Your task to perform on an android device: turn on airplane mode Image 0: 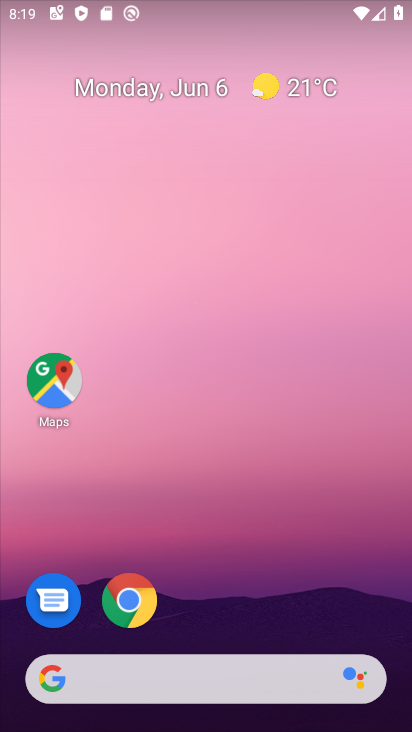
Step 0: drag from (366, 606) to (350, 85)
Your task to perform on an android device: turn on airplane mode Image 1: 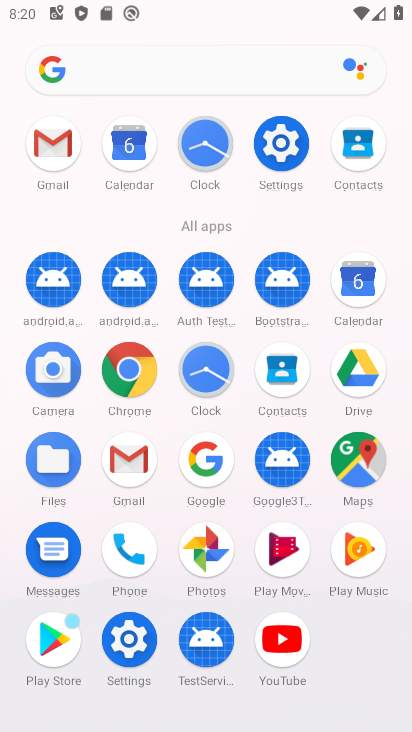
Step 1: click (128, 643)
Your task to perform on an android device: turn on airplane mode Image 2: 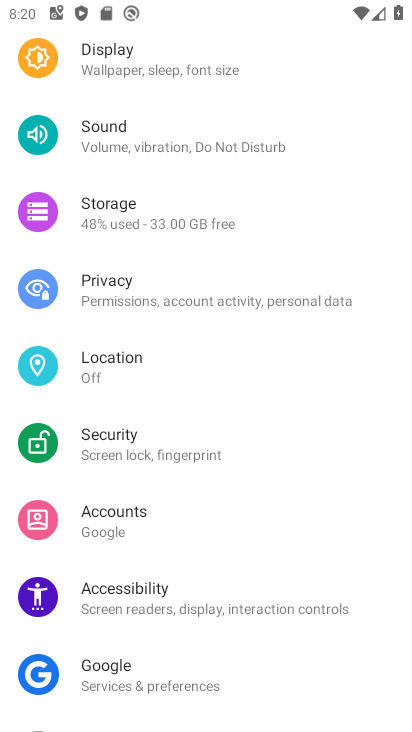
Step 2: drag from (357, 146) to (341, 449)
Your task to perform on an android device: turn on airplane mode Image 3: 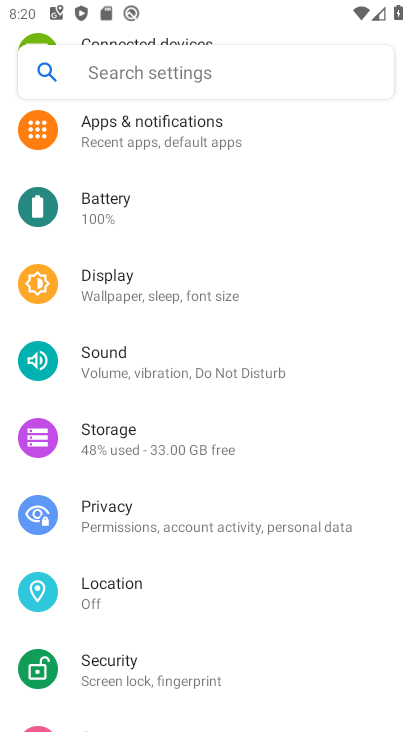
Step 3: drag from (342, 203) to (322, 519)
Your task to perform on an android device: turn on airplane mode Image 4: 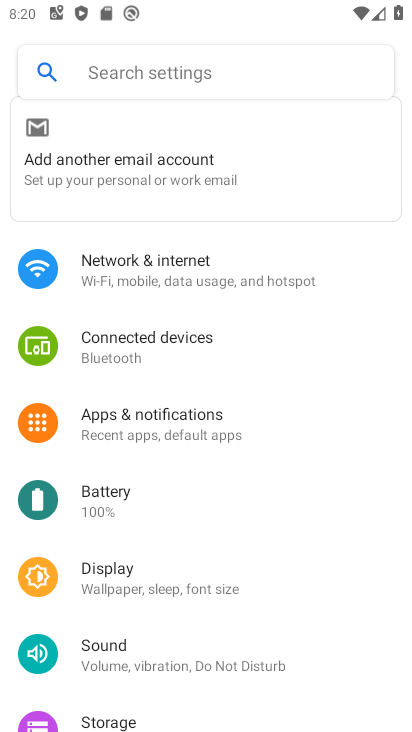
Step 4: click (149, 265)
Your task to perform on an android device: turn on airplane mode Image 5: 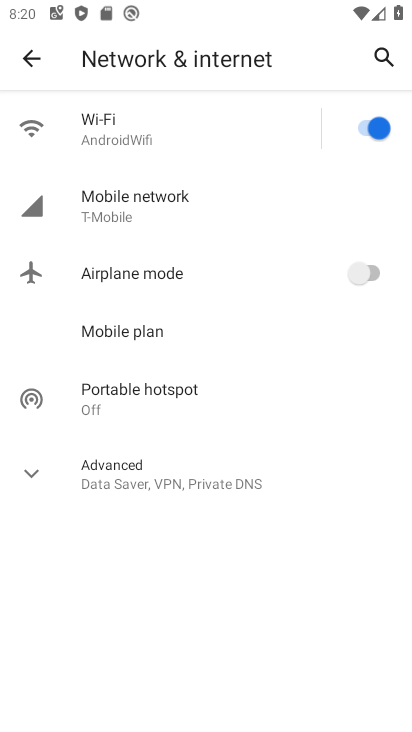
Step 5: click (378, 269)
Your task to perform on an android device: turn on airplane mode Image 6: 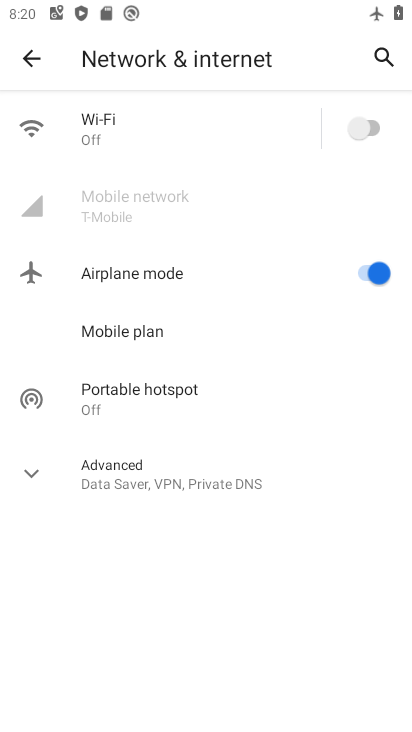
Step 6: task complete